Your task to perform on an android device: install app "Fetch Rewards" Image 0: 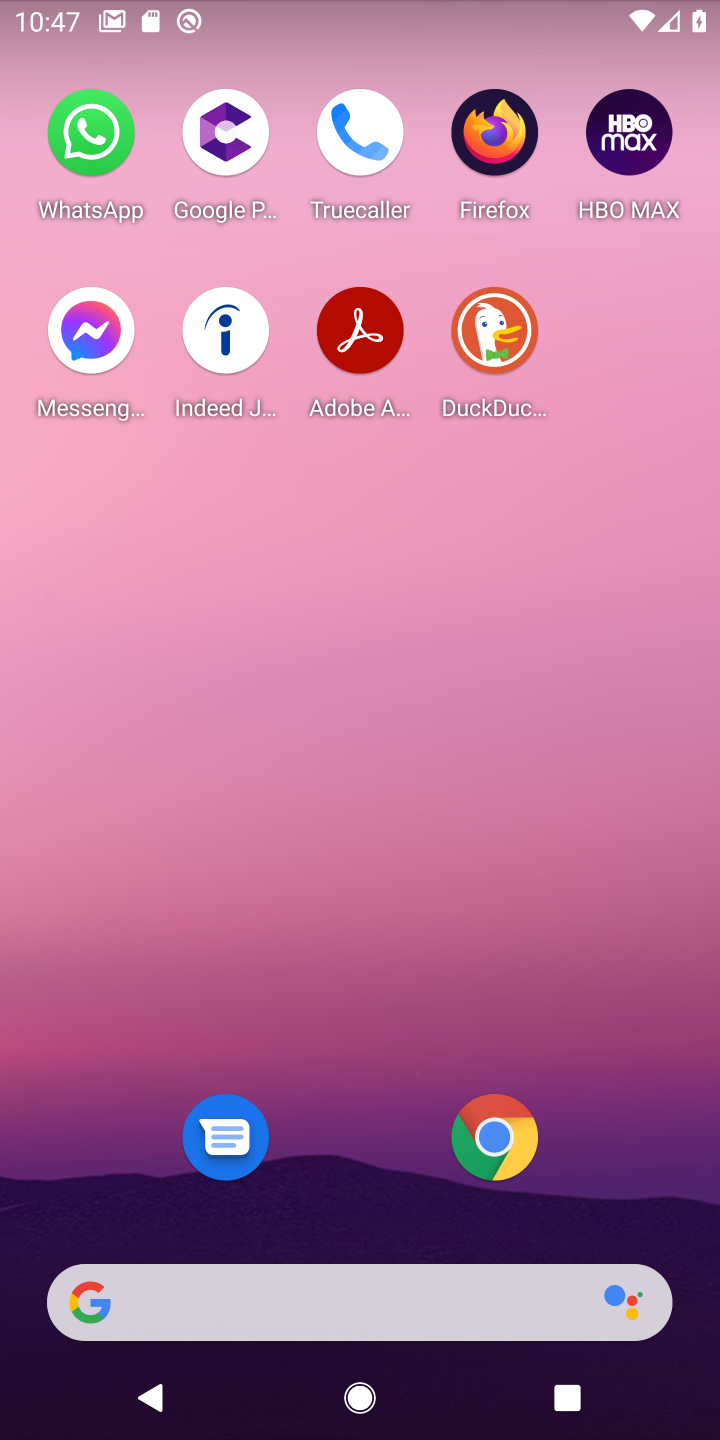
Step 0: press home button
Your task to perform on an android device: install app "Fetch Rewards" Image 1: 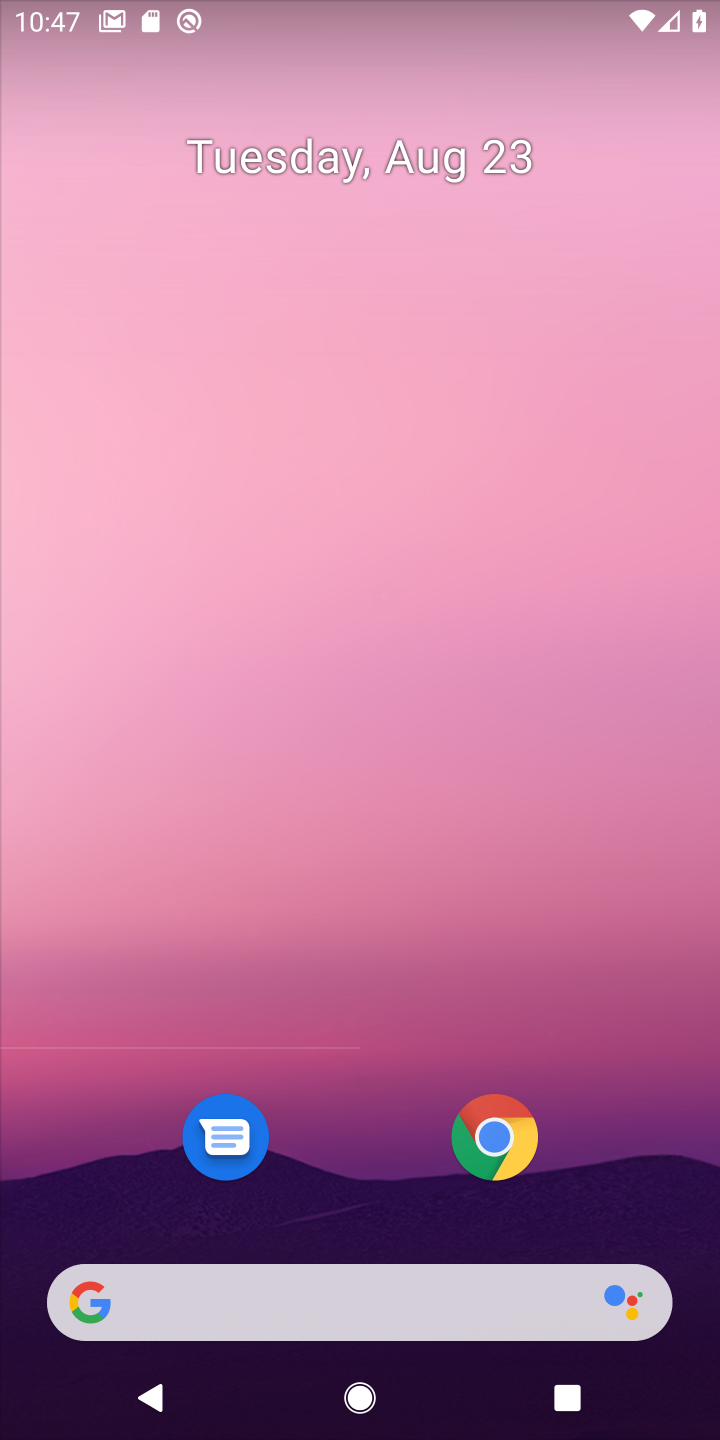
Step 1: drag from (337, 1120) to (430, 175)
Your task to perform on an android device: install app "Fetch Rewards" Image 2: 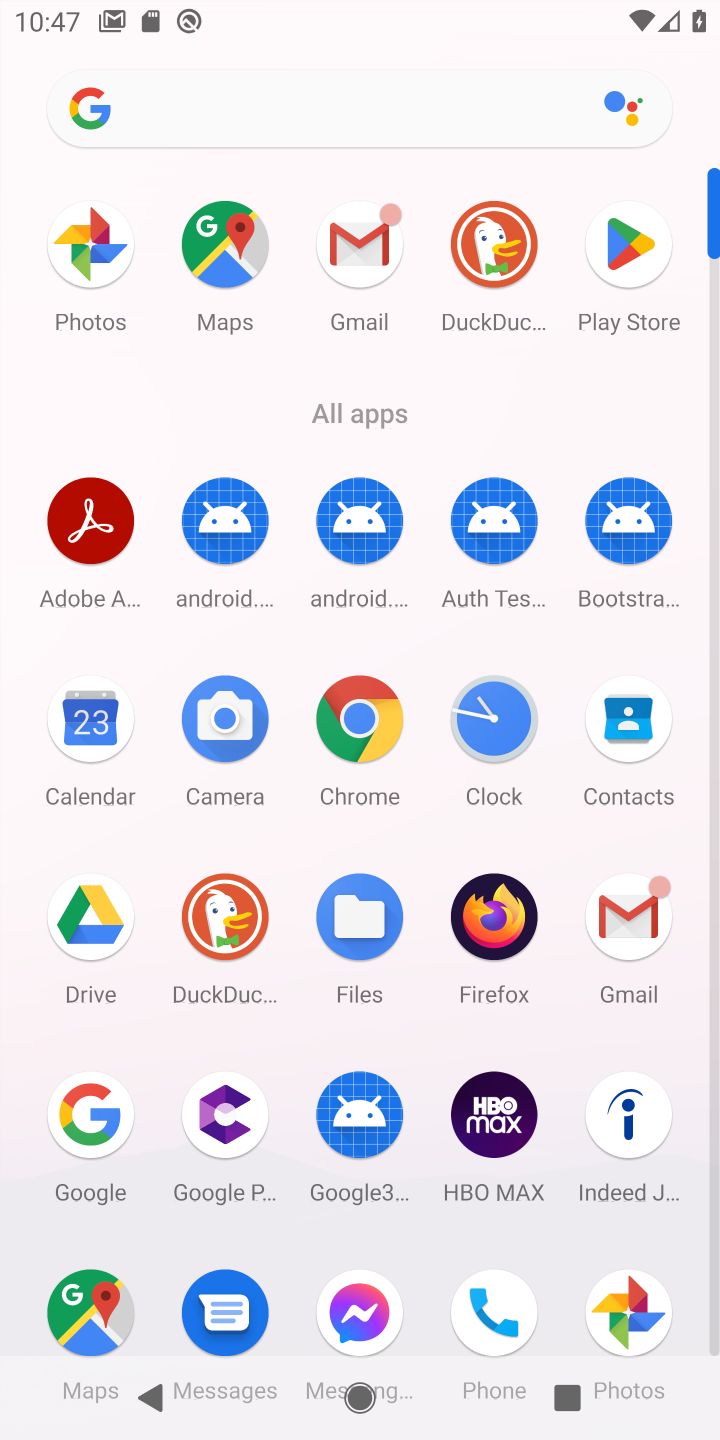
Step 2: click (655, 318)
Your task to perform on an android device: install app "Fetch Rewards" Image 3: 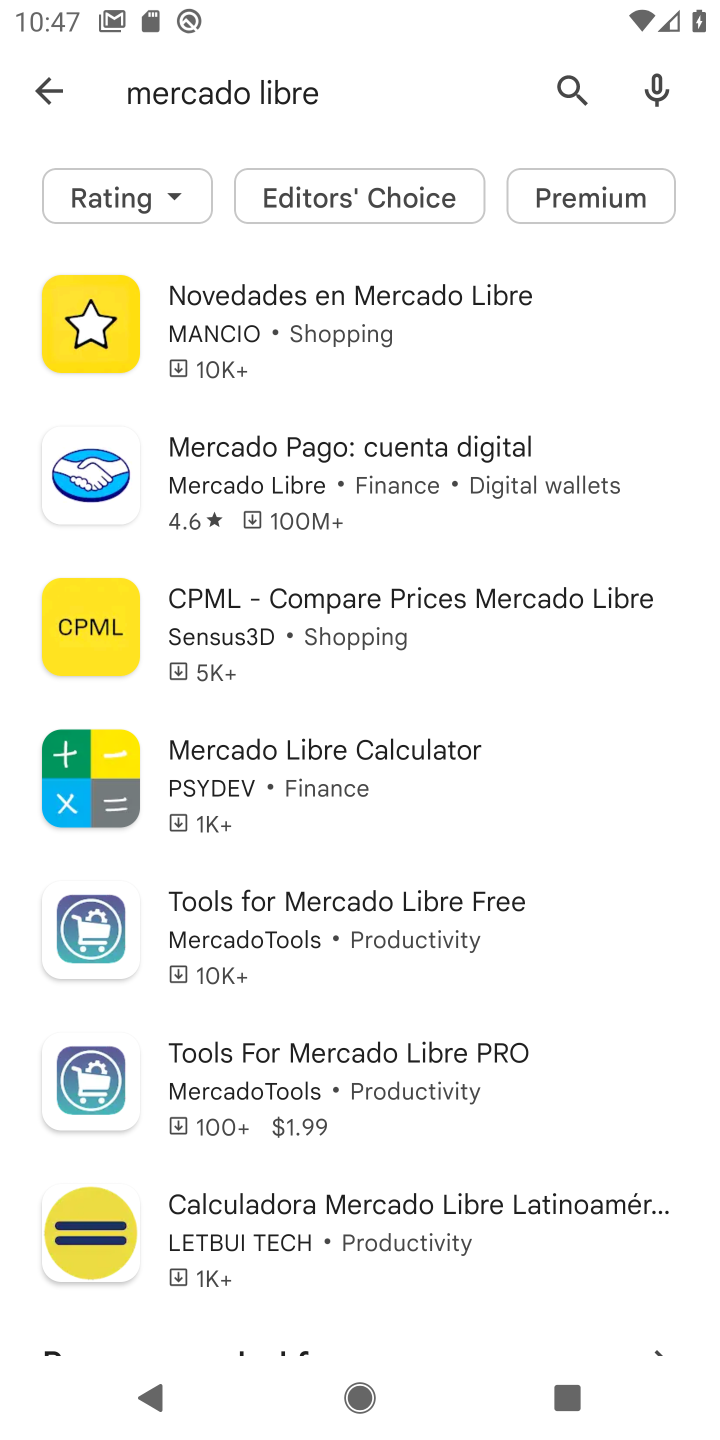
Step 3: click (347, 101)
Your task to perform on an android device: install app "Fetch Rewards" Image 4: 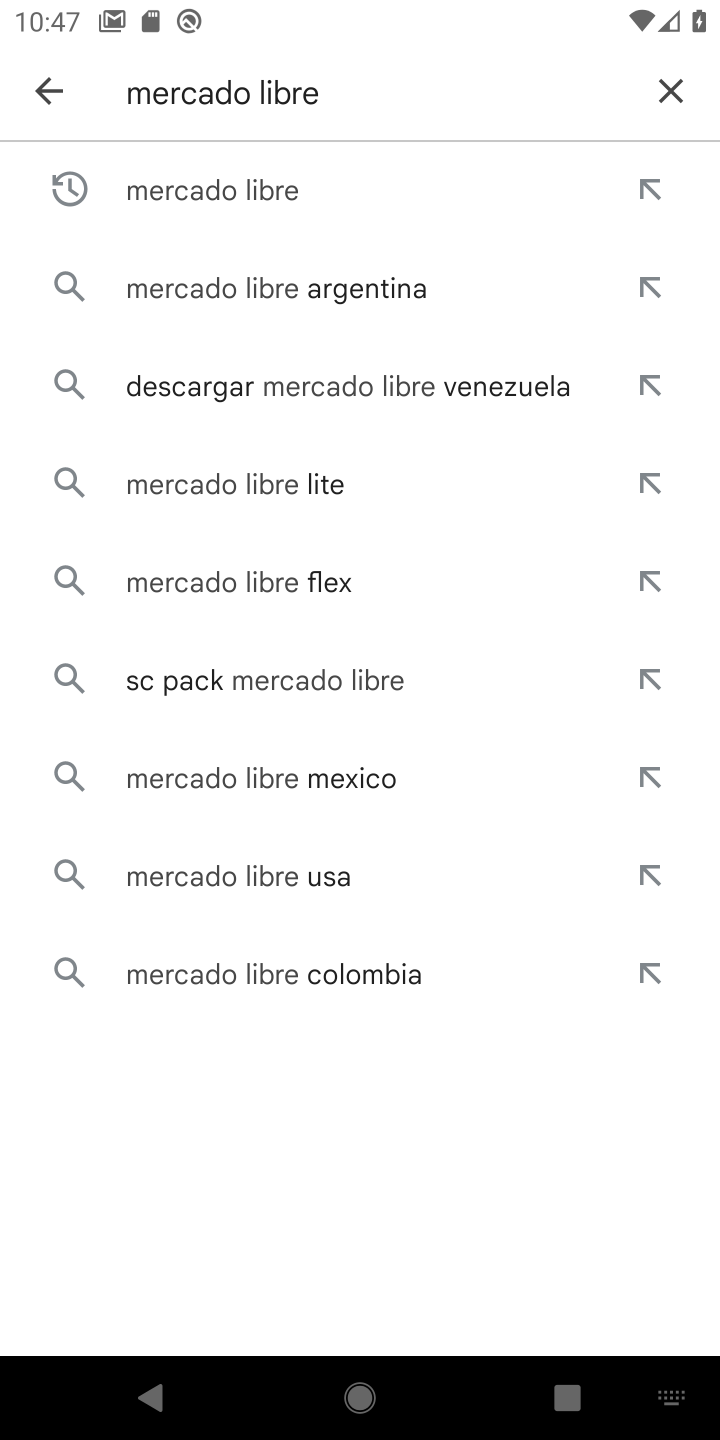
Step 4: click (666, 77)
Your task to perform on an android device: install app "Fetch Rewards" Image 5: 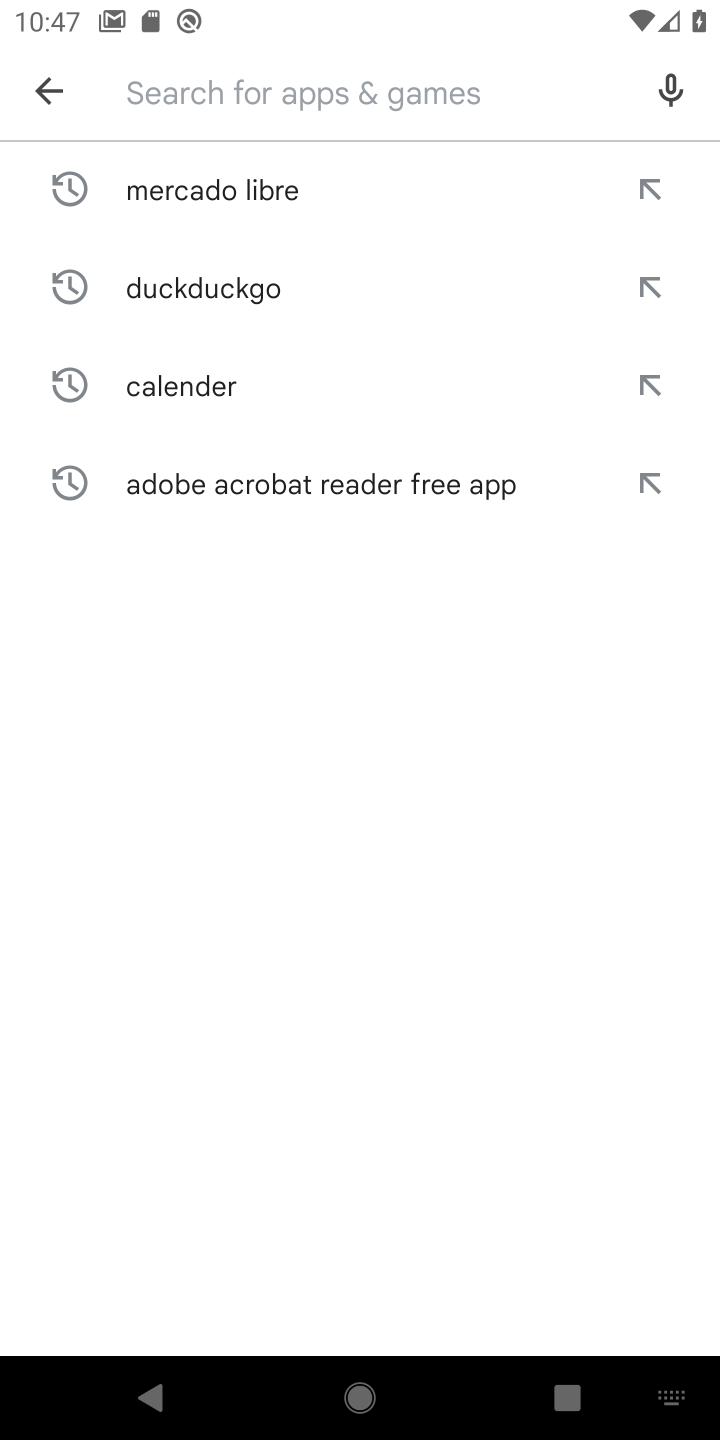
Step 5: type "Fetch rewards"
Your task to perform on an android device: install app "Fetch Rewards" Image 6: 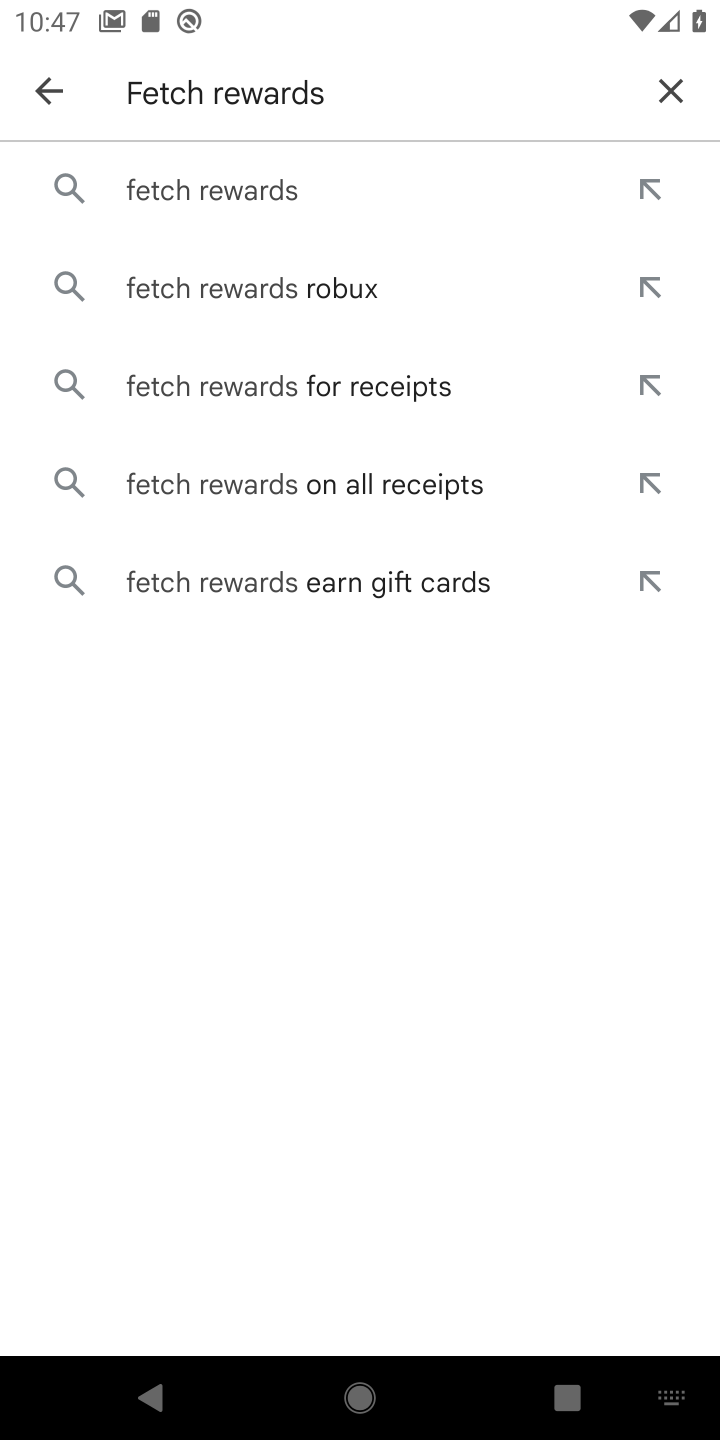
Step 6: click (299, 198)
Your task to perform on an android device: install app "Fetch Rewards" Image 7: 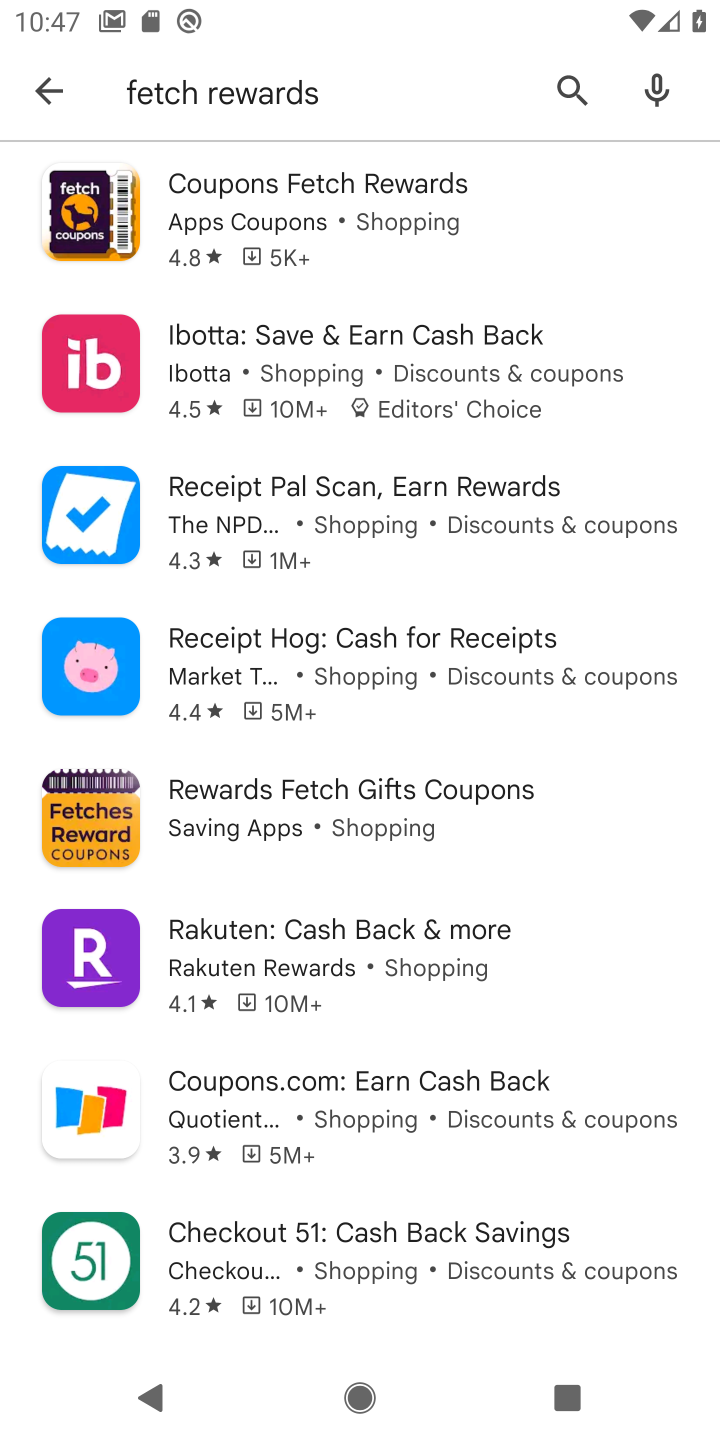
Step 7: task complete